Your task to perform on an android device: see tabs open on other devices in the chrome app Image 0: 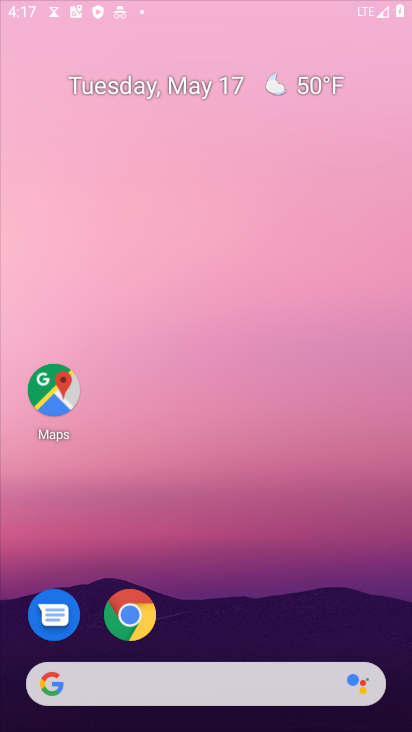
Step 0: drag from (231, 287) to (208, 202)
Your task to perform on an android device: see tabs open on other devices in the chrome app Image 1: 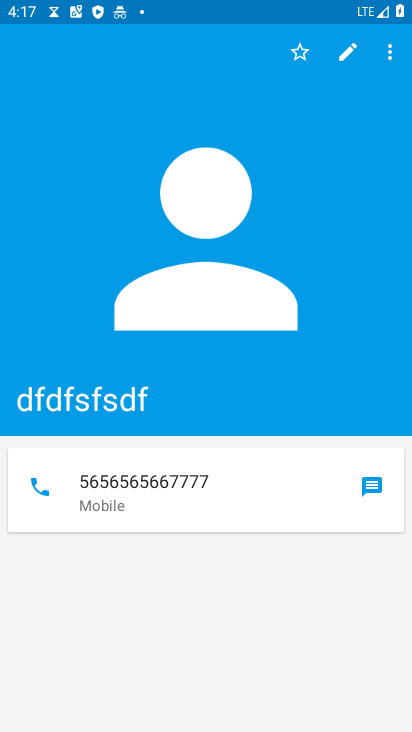
Step 1: press back button
Your task to perform on an android device: see tabs open on other devices in the chrome app Image 2: 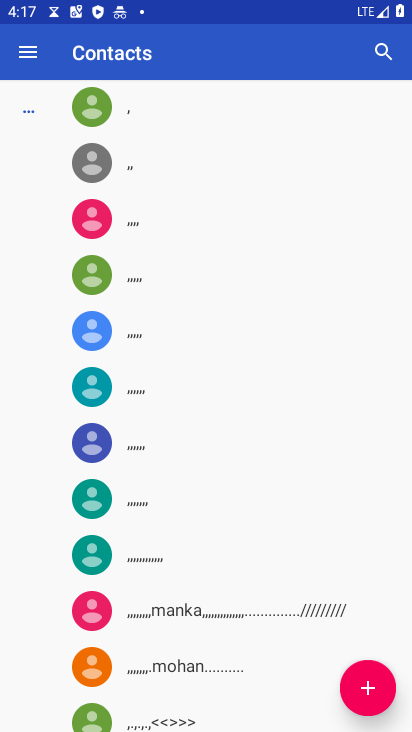
Step 2: press back button
Your task to perform on an android device: see tabs open on other devices in the chrome app Image 3: 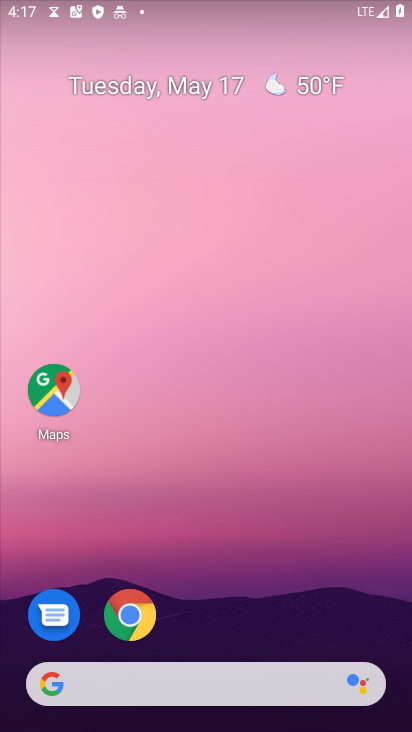
Step 3: drag from (291, 712) to (130, 192)
Your task to perform on an android device: see tabs open on other devices in the chrome app Image 4: 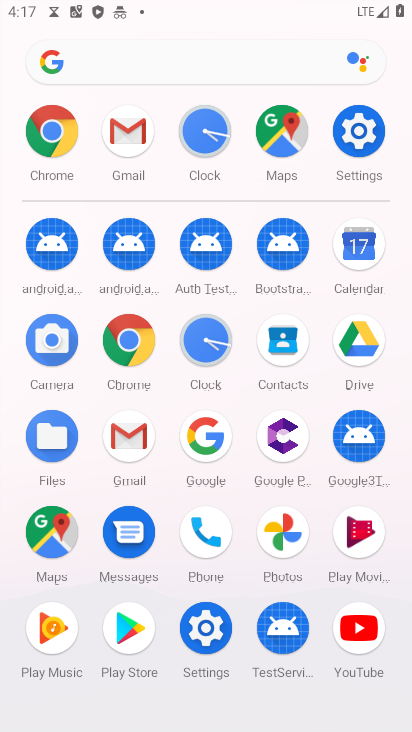
Step 4: click (61, 121)
Your task to perform on an android device: see tabs open on other devices in the chrome app Image 5: 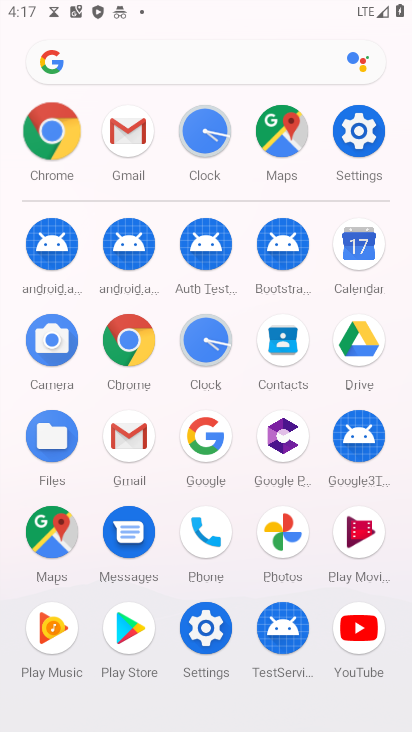
Step 5: click (61, 121)
Your task to perform on an android device: see tabs open on other devices in the chrome app Image 6: 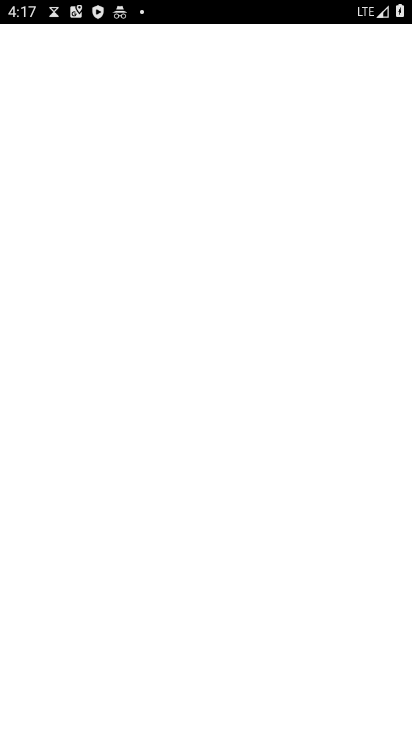
Step 6: click (61, 121)
Your task to perform on an android device: see tabs open on other devices in the chrome app Image 7: 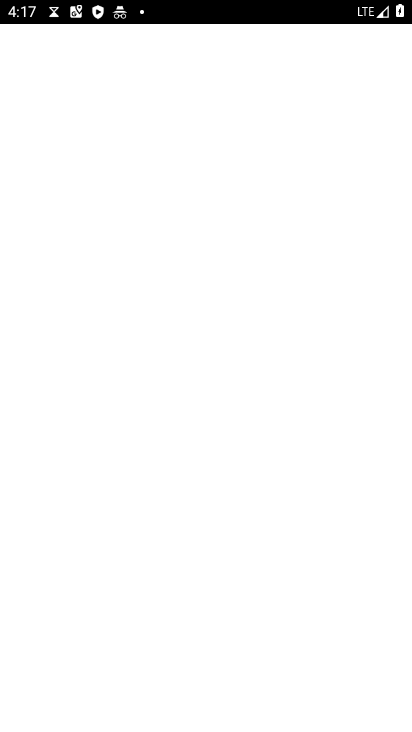
Step 7: click (61, 121)
Your task to perform on an android device: see tabs open on other devices in the chrome app Image 8: 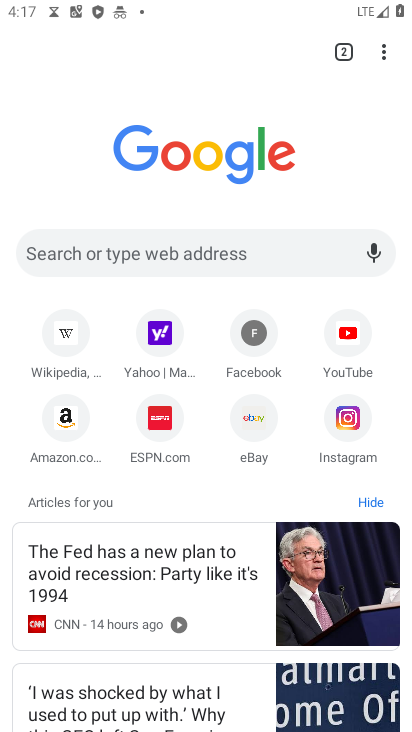
Step 8: drag from (382, 53) to (200, 433)
Your task to perform on an android device: see tabs open on other devices in the chrome app Image 9: 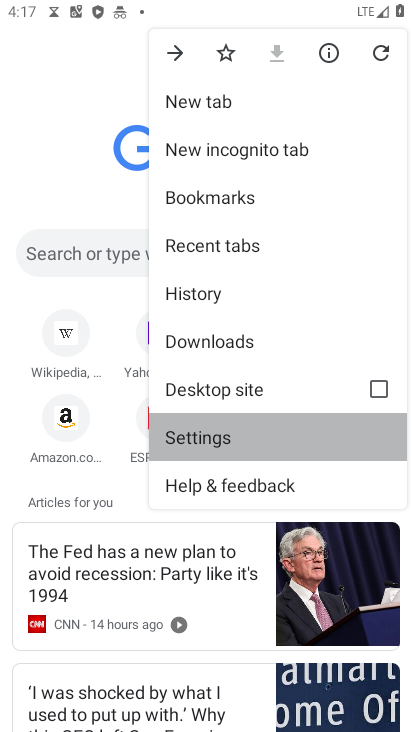
Step 9: click (200, 433)
Your task to perform on an android device: see tabs open on other devices in the chrome app Image 10: 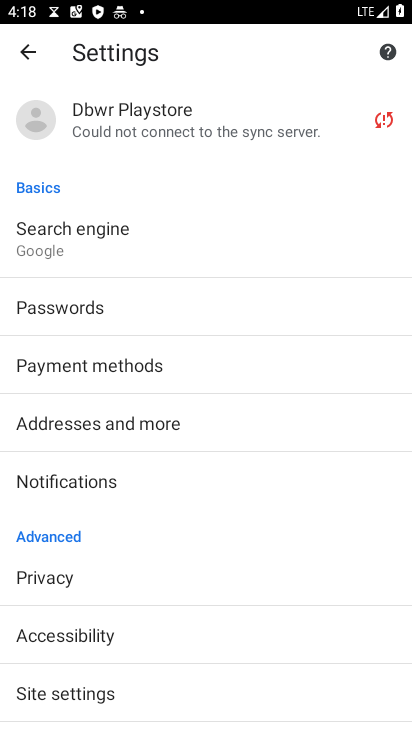
Step 10: click (19, 56)
Your task to perform on an android device: see tabs open on other devices in the chrome app Image 11: 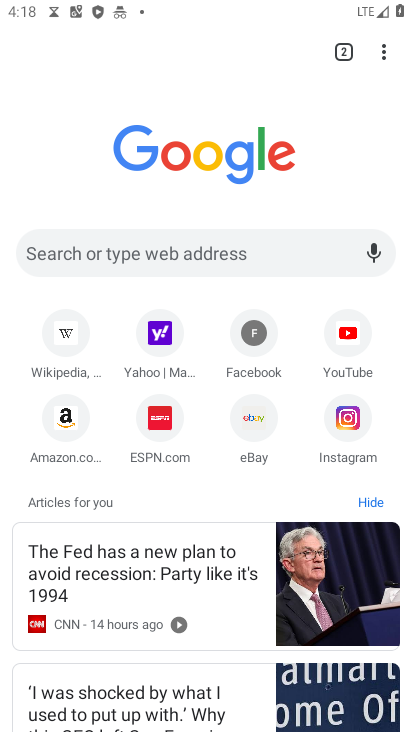
Step 11: click (385, 50)
Your task to perform on an android device: see tabs open on other devices in the chrome app Image 12: 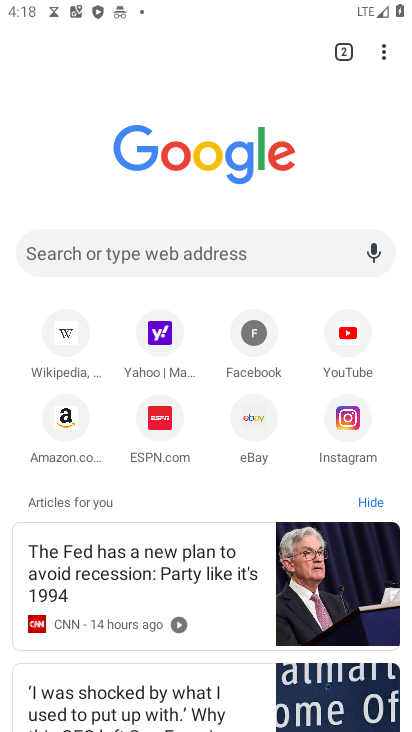
Step 12: click (385, 49)
Your task to perform on an android device: see tabs open on other devices in the chrome app Image 13: 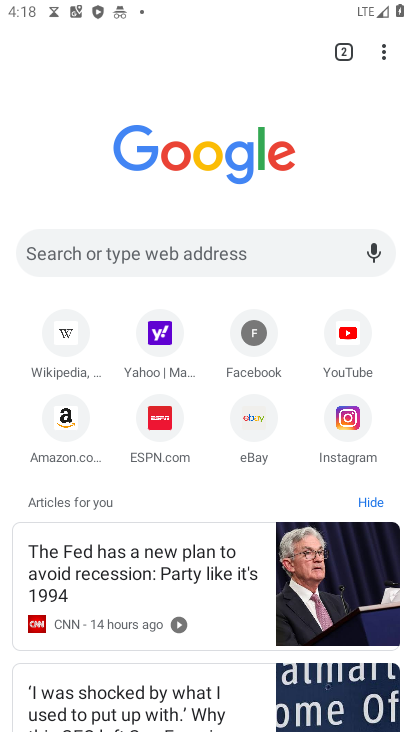
Step 13: click (385, 49)
Your task to perform on an android device: see tabs open on other devices in the chrome app Image 14: 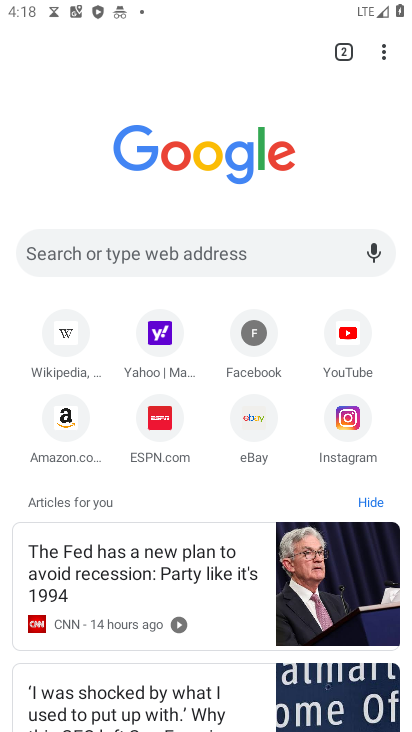
Step 14: click (385, 49)
Your task to perform on an android device: see tabs open on other devices in the chrome app Image 15: 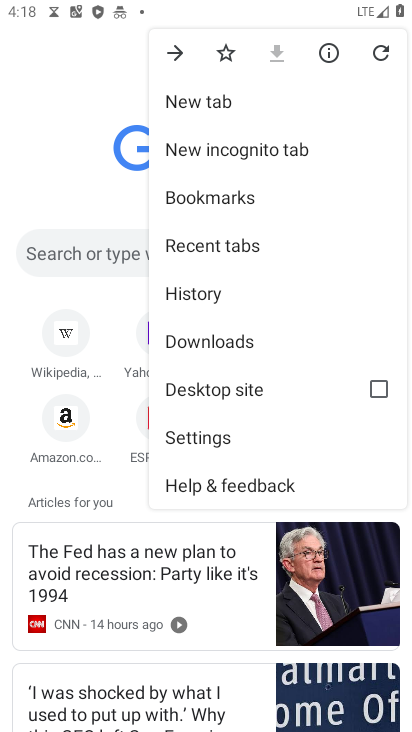
Step 15: click (205, 239)
Your task to perform on an android device: see tabs open on other devices in the chrome app Image 16: 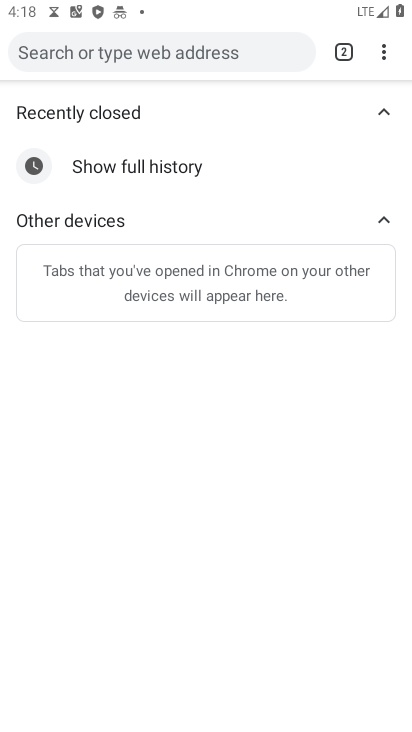
Step 16: task complete